Your task to perform on an android device: turn on airplane mode Image 0: 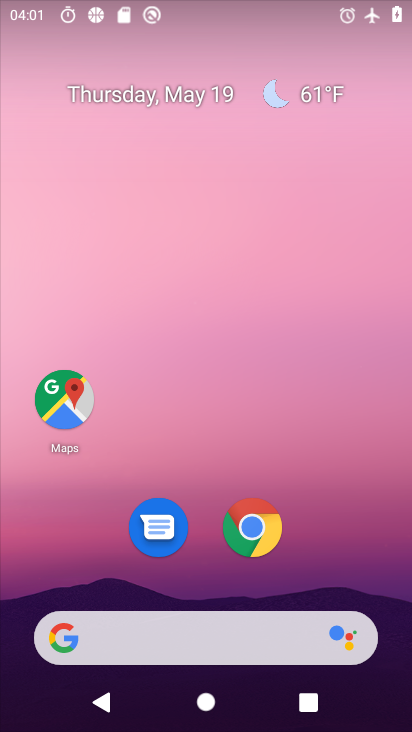
Step 0: drag from (368, 18) to (338, 530)
Your task to perform on an android device: turn on airplane mode Image 1: 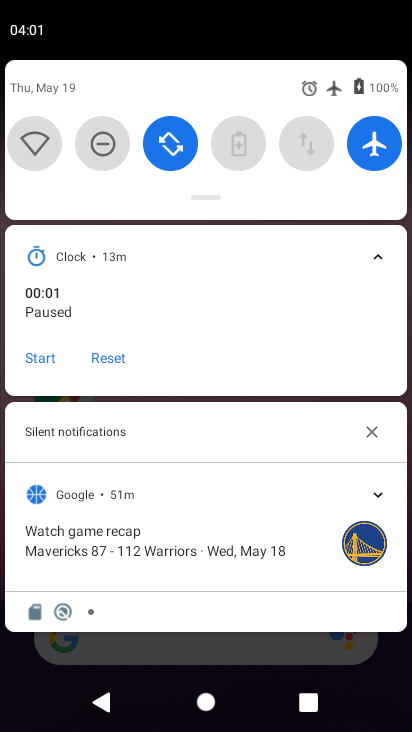
Step 1: task complete